Your task to perform on an android device: Open Wikipedia Image 0: 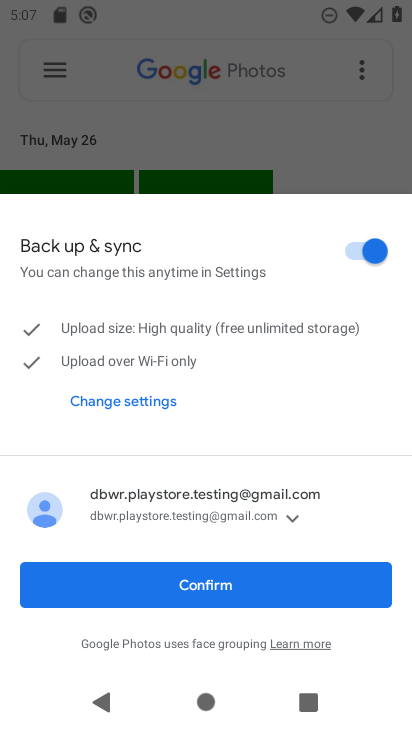
Step 0: press home button
Your task to perform on an android device: Open Wikipedia Image 1: 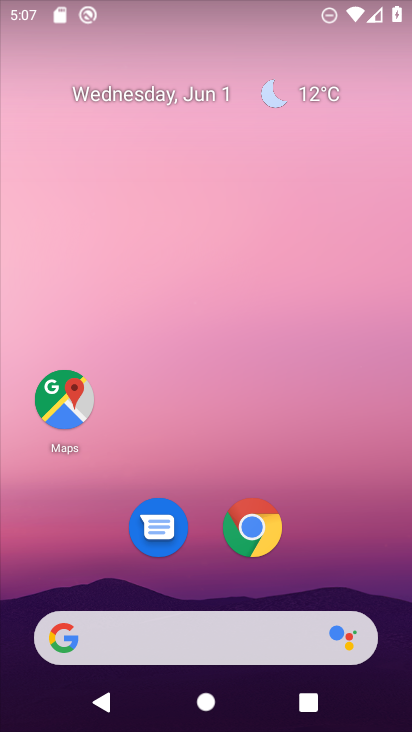
Step 1: click (258, 530)
Your task to perform on an android device: Open Wikipedia Image 2: 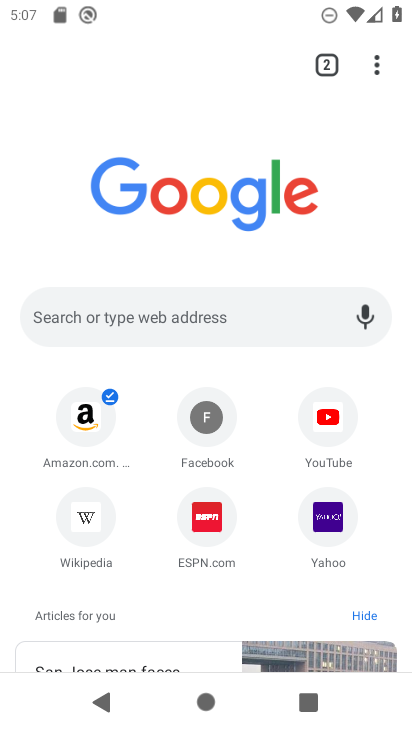
Step 2: click (91, 499)
Your task to perform on an android device: Open Wikipedia Image 3: 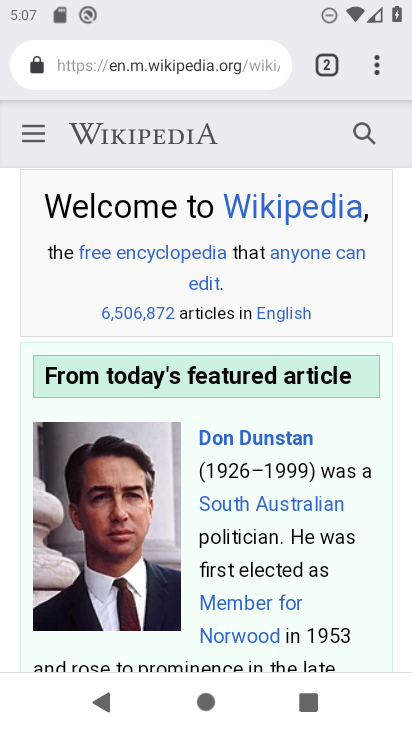
Step 3: task complete